Your task to perform on an android device: turn off priority inbox in the gmail app Image 0: 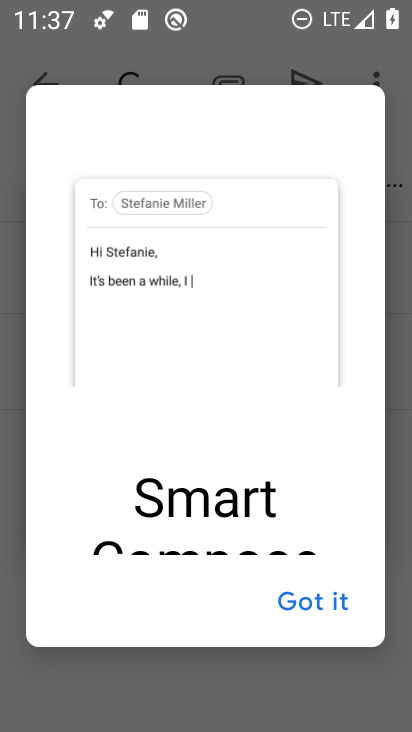
Step 0: click (319, 605)
Your task to perform on an android device: turn off priority inbox in the gmail app Image 1: 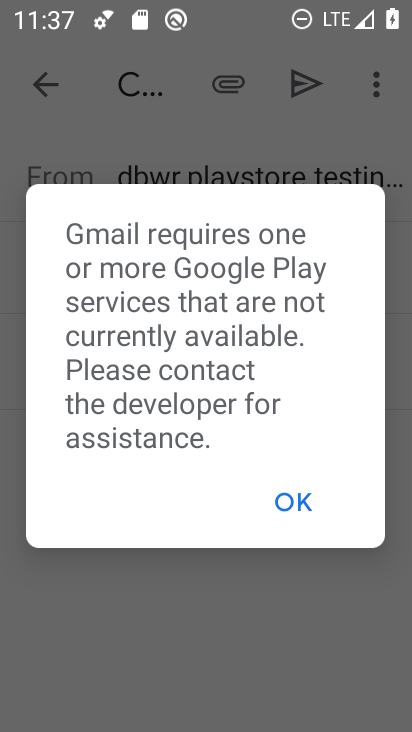
Step 1: press home button
Your task to perform on an android device: turn off priority inbox in the gmail app Image 2: 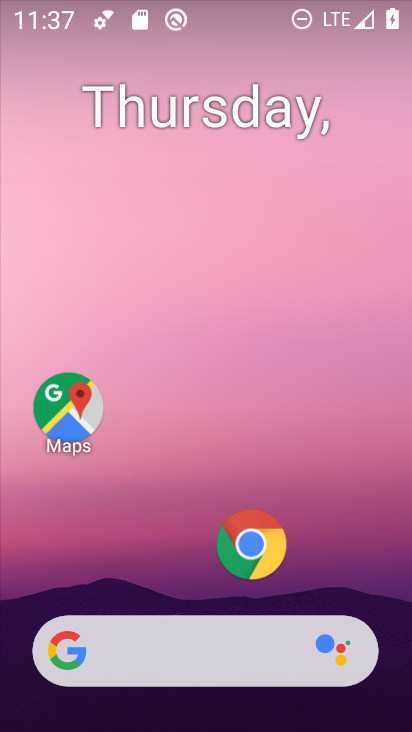
Step 2: drag from (181, 603) to (192, 11)
Your task to perform on an android device: turn off priority inbox in the gmail app Image 3: 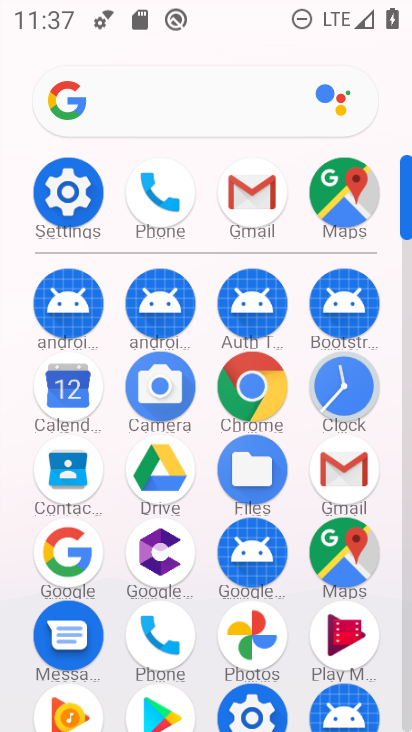
Step 3: click (352, 469)
Your task to perform on an android device: turn off priority inbox in the gmail app Image 4: 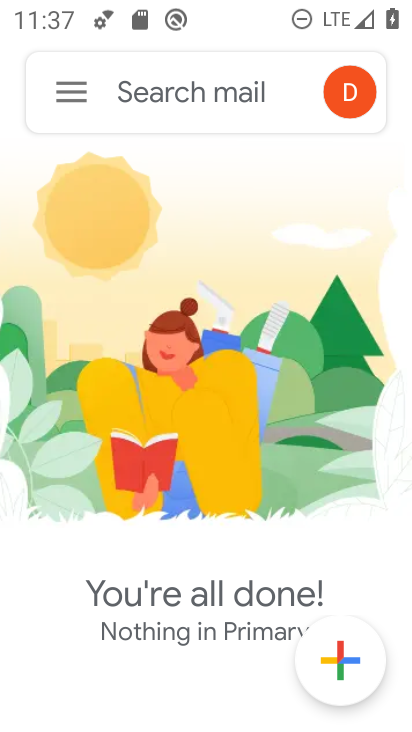
Step 4: click (47, 80)
Your task to perform on an android device: turn off priority inbox in the gmail app Image 5: 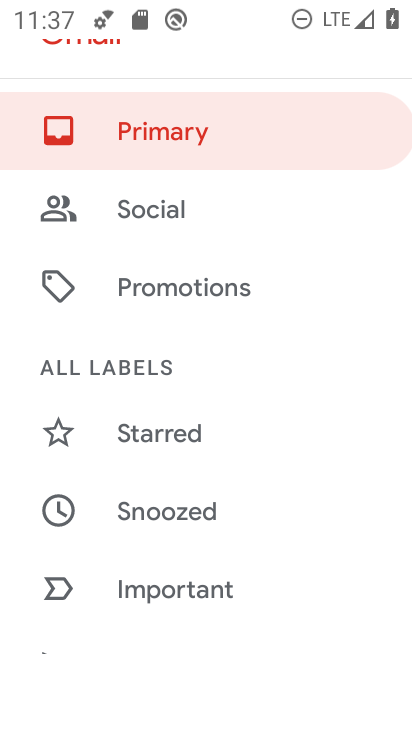
Step 5: drag from (150, 598) to (134, 106)
Your task to perform on an android device: turn off priority inbox in the gmail app Image 6: 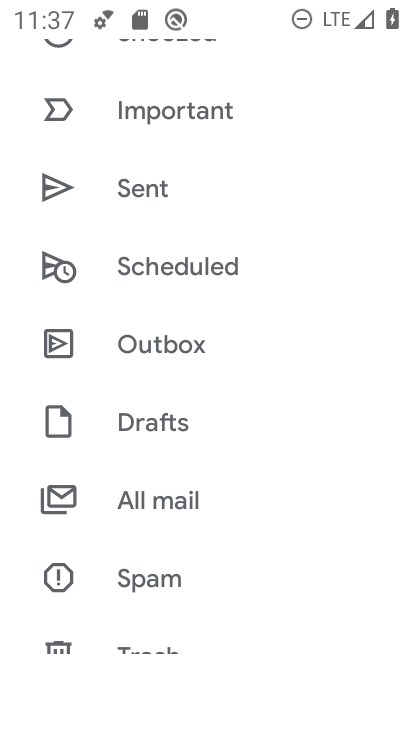
Step 6: drag from (154, 598) to (111, 75)
Your task to perform on an android device: turn off priority inbox in the gmail app Image 7: 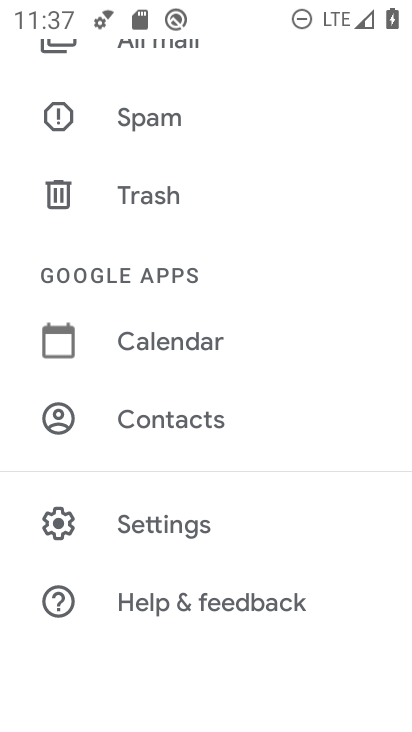
Step 7: click (142, 531)
Your task to perform on an android device: turn off priority inbox in the gmail app Image 8: 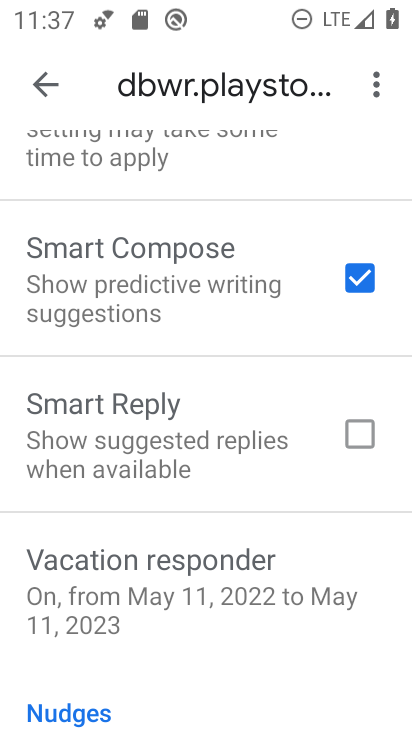
Step 8: drag from (202, 227) to (178, 701)
Your task to perform on an android device: turn off priority inbox in the gmail app Image 9: 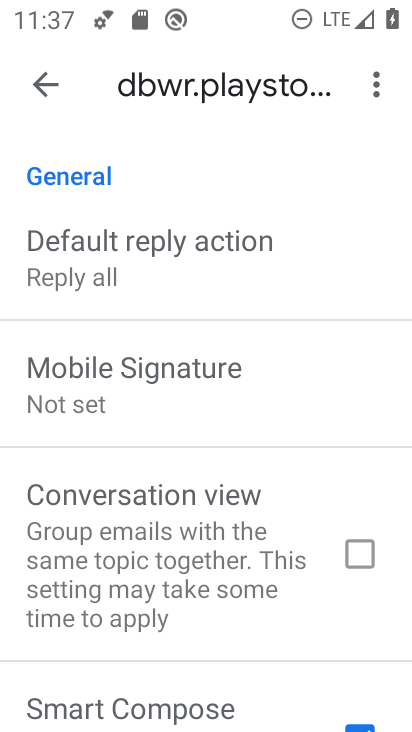
Step 9: drag from (153, 316) to (167, 731)
Your task to perform on an android device: turn off priority inbox in the gmail app Image 10: 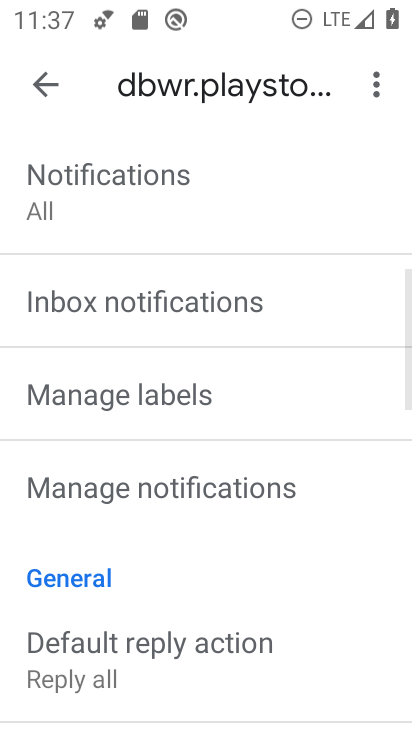
Step 10: drag from (139, 203) to (139, 668)
Your task to perform on an android device: turn off priority inbox in the gmail app Image 11: 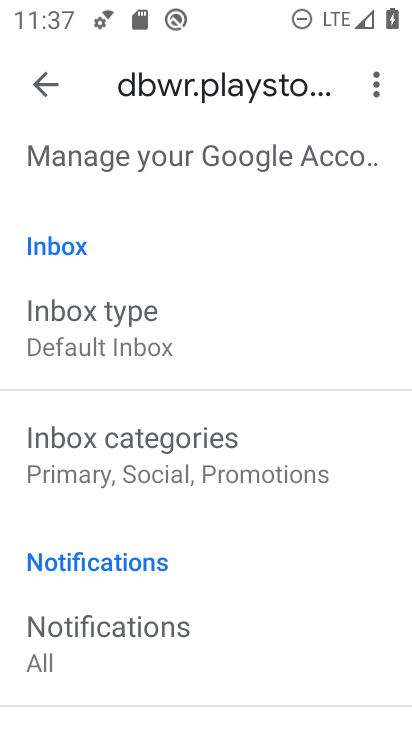
Step 11: click (138, 345)
Your task to perform on an android device: turn off priority inbox in the gmail app Image 12: 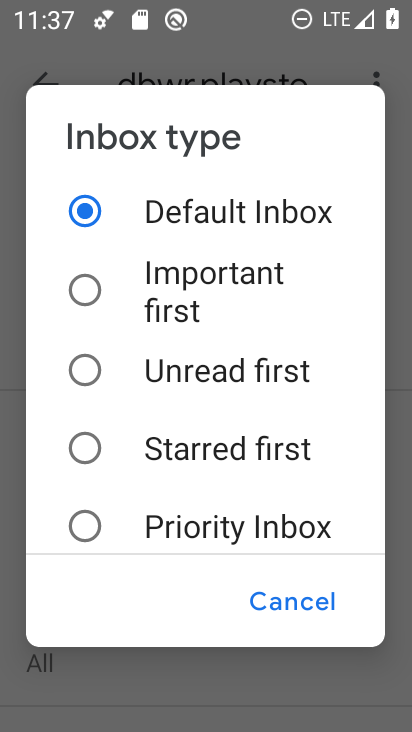
Step 12: task complete